Your task to perform on an android device: all mails in gmail Image 0: 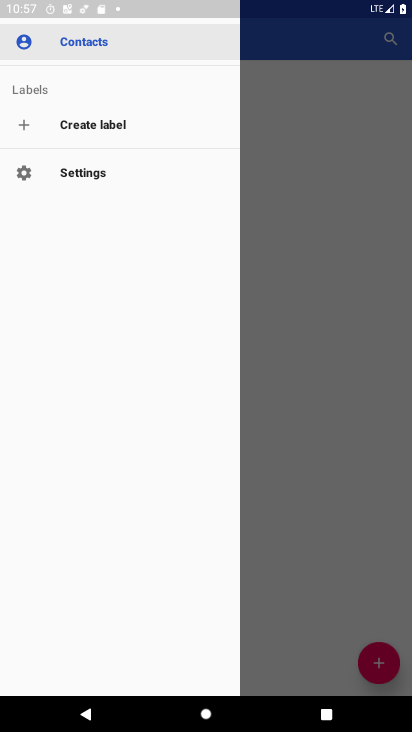
Step 0: press home button
Your task to perform on an android device: all mails in gmail Image 1: 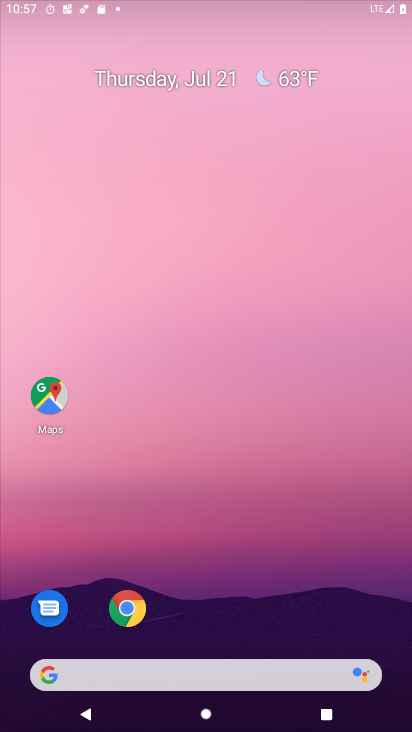
Step 1: drag from (237, 636) to (310, 129)
Your task to perform on an android device: all mails in gmail Image 2: 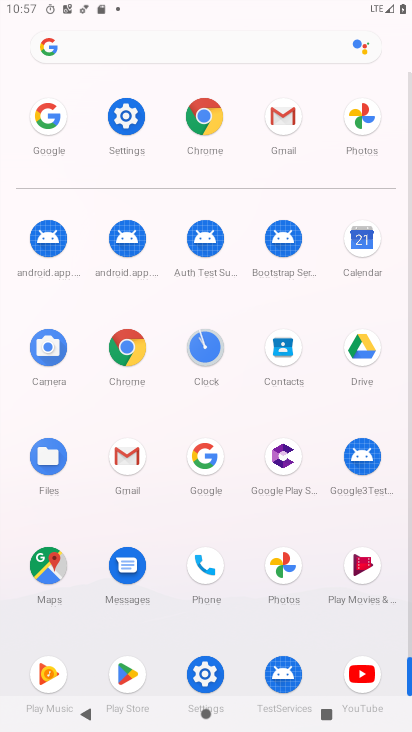
Step 2: click (137, 481)
Your task to perform on an android device: all mails in gmail Image 3: 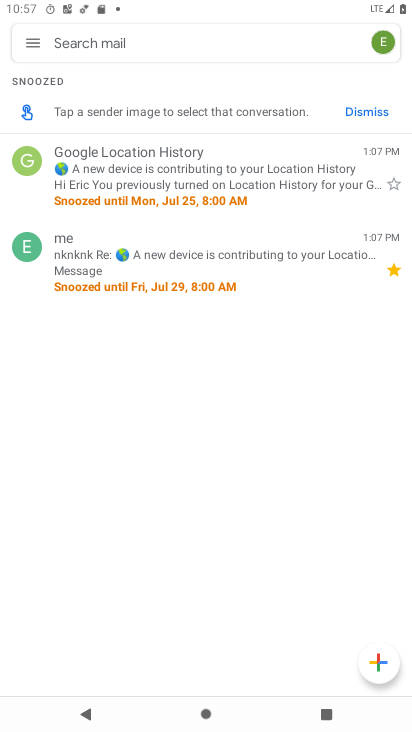
Step 3: click (37, 40)
Your task to perform on an android device: all mails in gmail Image 4: 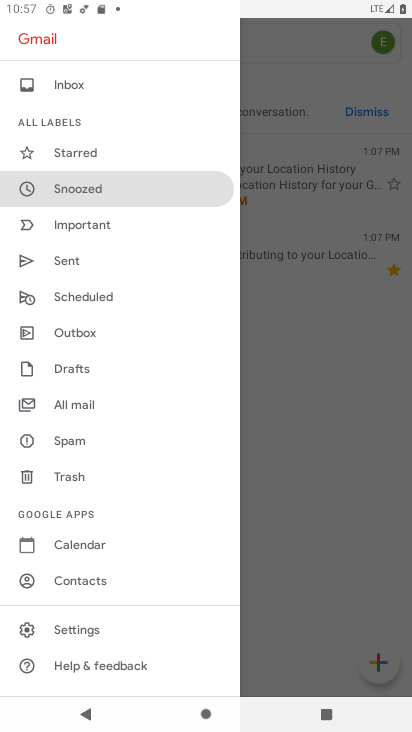
Step 4: click (95, 404)
Your task to perform on an android device: all mails in gmail Image 5: 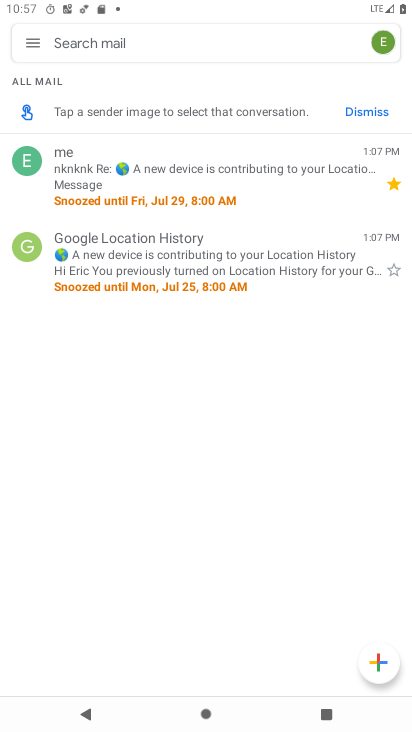
Step 5: task complete